Your task to perform on an android device: turn off improve location accuracy Image 0: 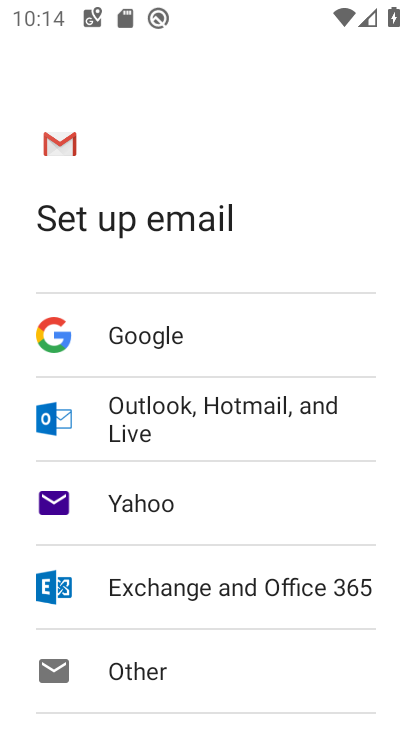
Step 0: press home button
Your task to perform on an android device: turn off improve location accuracy Image 1: 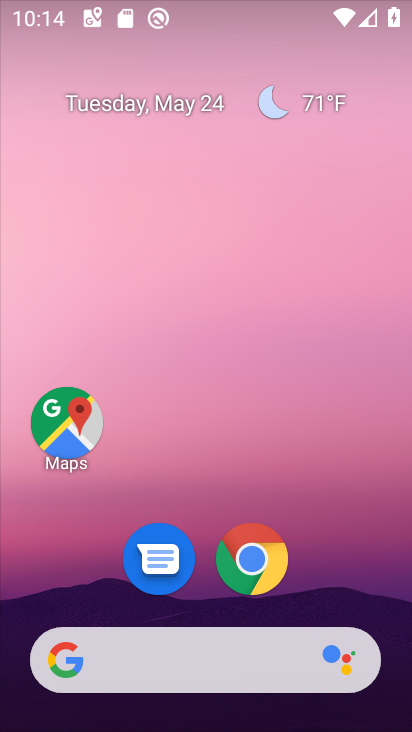
Step 1: drag from (397, 687) to (276, 0)
Your task to perform on an android device: turn off improve location accuracy Image 2: 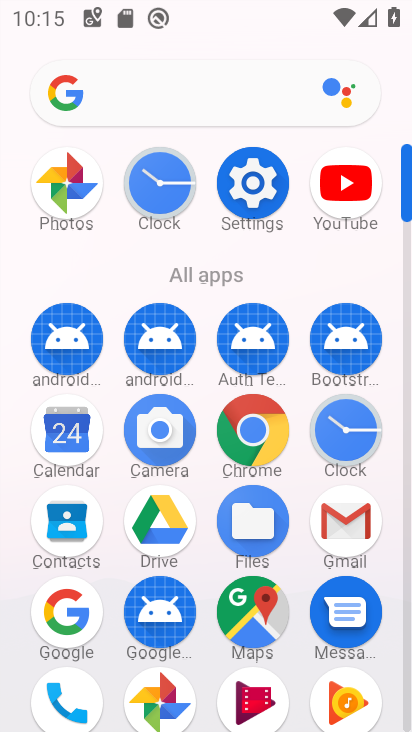
Step 2: click (243, 192)
Your task to perform on an android device: turn off improve location accuracy Image 3: 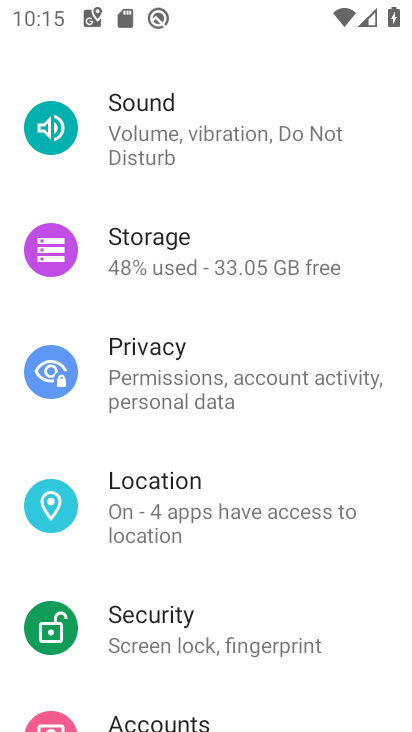
Step 3: click (206, 508)
Your task to perform on an android device: turn off improve location accuracy Image 4: 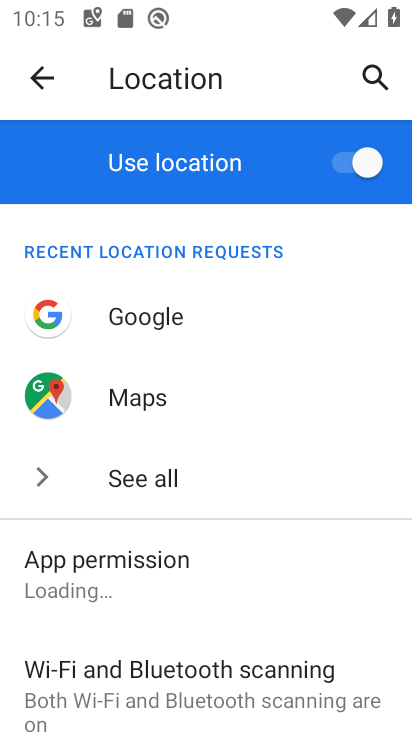
Step 4: drag from (178, 688) to (224, 413)
Your task to perform on an android device: turn off improve location accuracy Image 5: 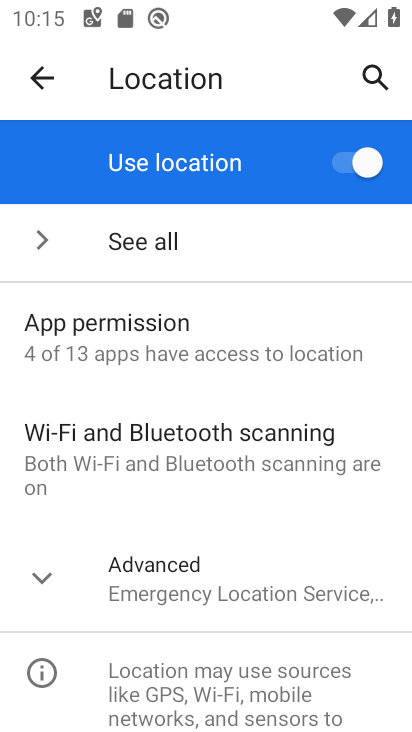
Step 5: click (157, 592)
Your task to perform on an android device: turn off improve location accuracy Image 6: 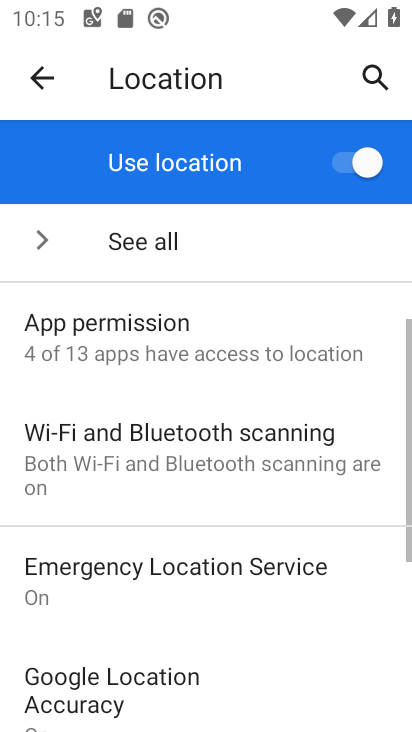
Step 6: click (226, 678)
Your task to perform on an android device: turn off improve location accuracy Image 7: 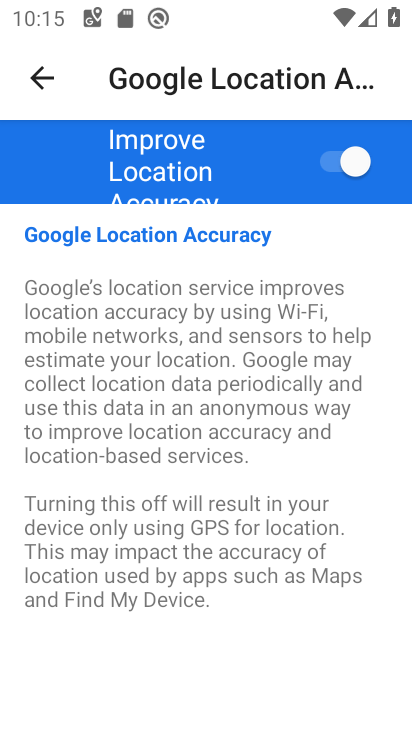
Step 7: click (313, 172)
Your task to perform on an android device: turn off improve location accuracy Image 8: 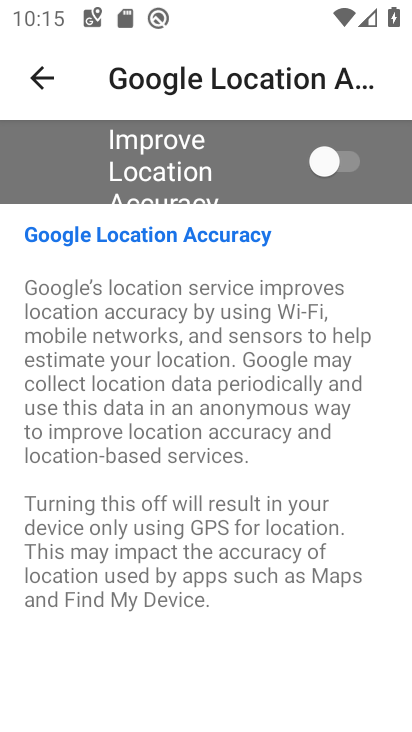
Step 8: task complete